Your task to perform on an android device: Open eBay Image 0: 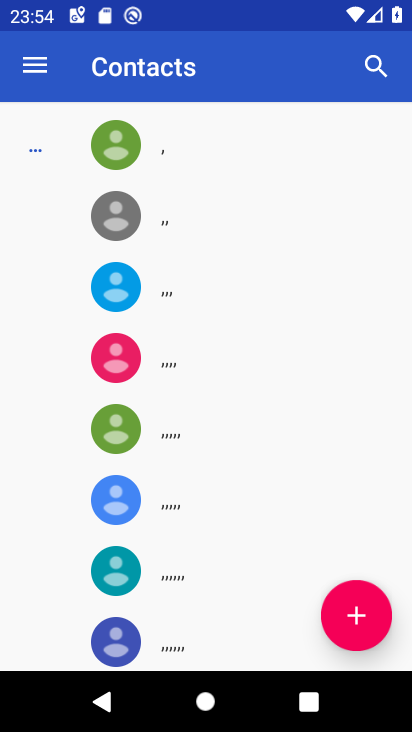
Step 0: press home button
Your task to perform on an android device: Open eBay Image 1: 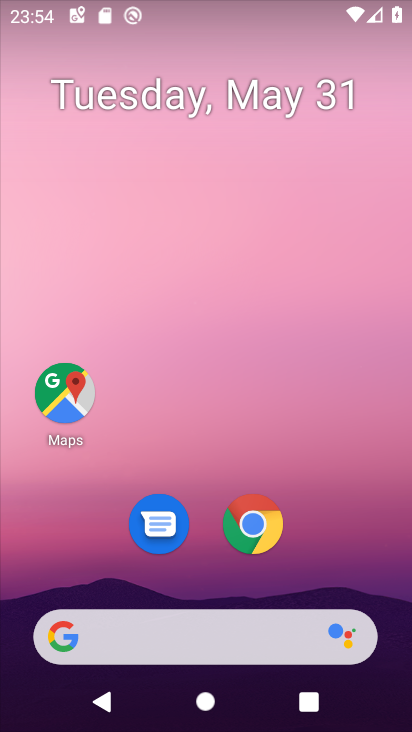
Step 1: click (257, 646)
Your task to perform on an android device: Open eBay Image 2: 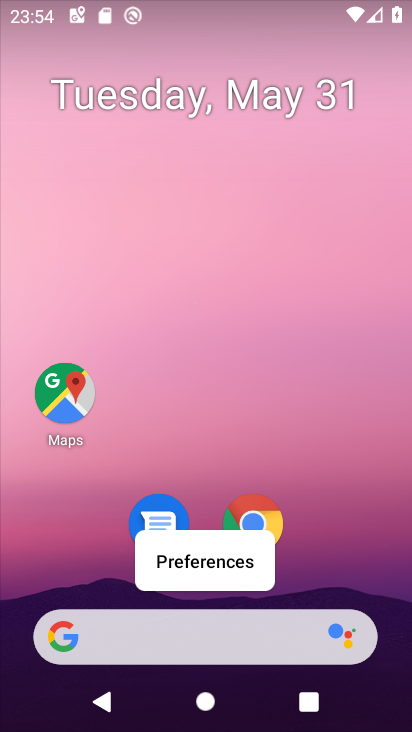
Step 2: click (234, 629)
Your task to perform on an android device: Open eBay Image 3: 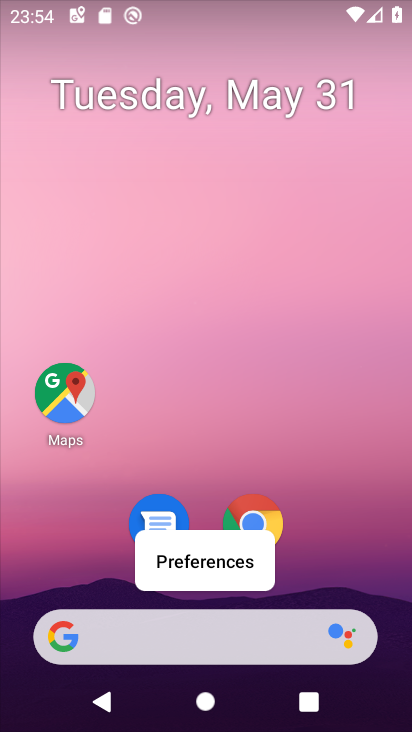
Step 3: click (187, 644)
Your task to perform on an android device: Open eBay Image 4: 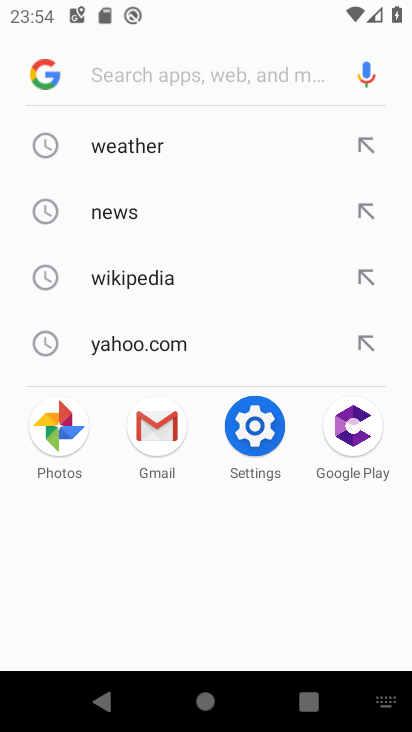
Step 4: type "ebay"
Your task to perform on an android device: Open eBay Image 5: 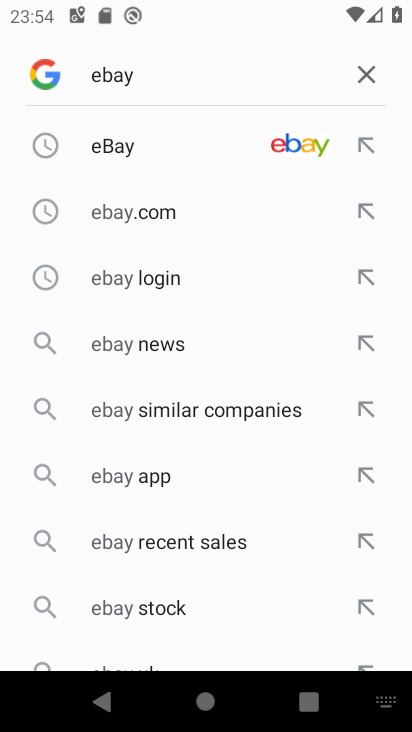
Step 5: click (117, 142)
Your task to perform on an android device: Open eBay Image 6: 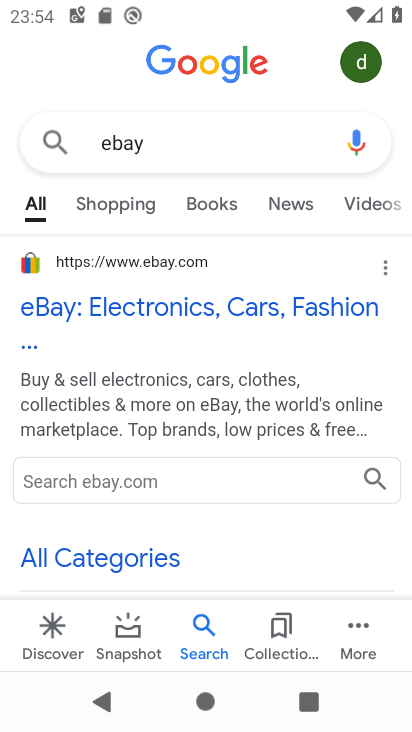
Step 6: click (57, 306)
Your task to perform on an android device: Open eBay Image 7: 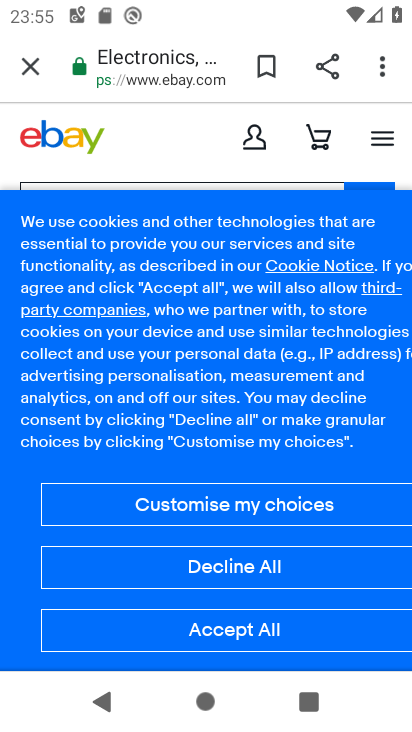
Step 7: task complete